Your task to perform on an android device: Toggle the flashlight Image 0: 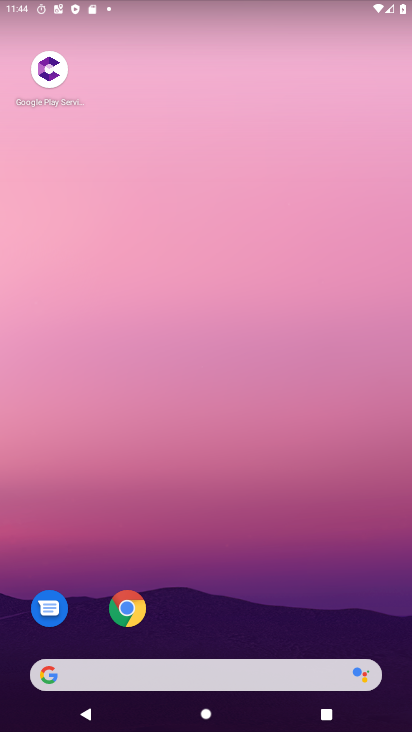
Step 0: drag from (228, 5) to (212, 412)
Your task to perform on an android device: Toggle the flashlight Image 1: 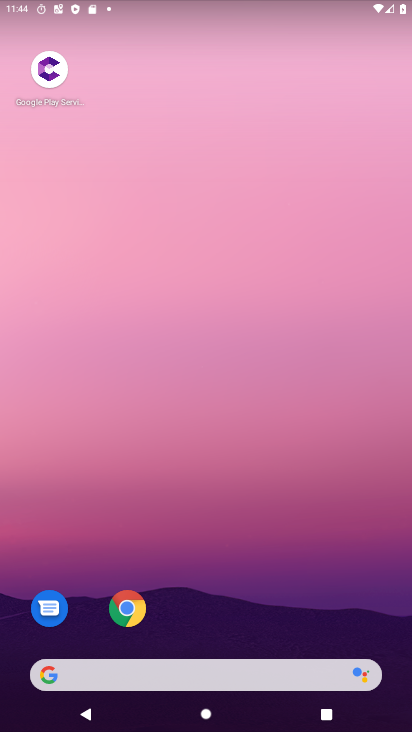
Step 1: drag from (206, 5) to (155, 470)
Your task to perform on an android device: Toggle the flashlight Image 2: 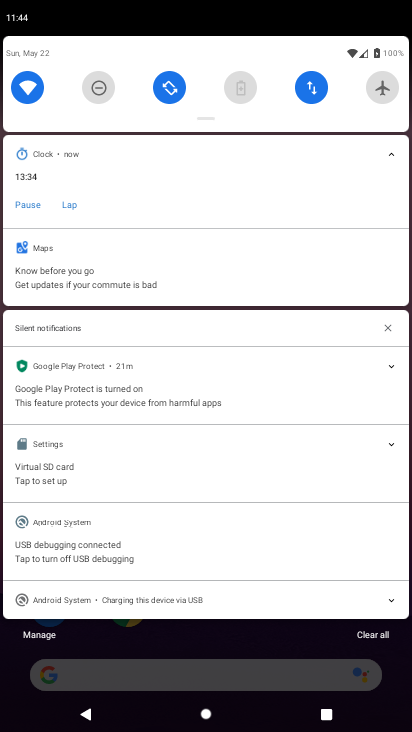
Step 2: drag from (199, 105) to (192, 377)
Your task to perform on an android device: Toggle the flashlight Image 3: 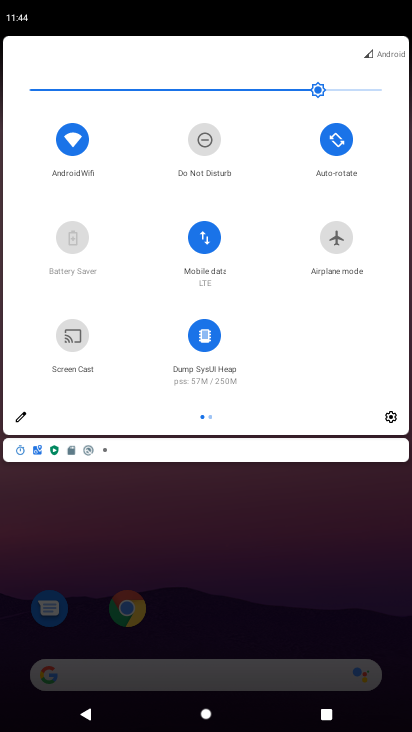
Step 3: click (26, 421)
Your task to perform on an android device: Toggle the flashlight Image 4: 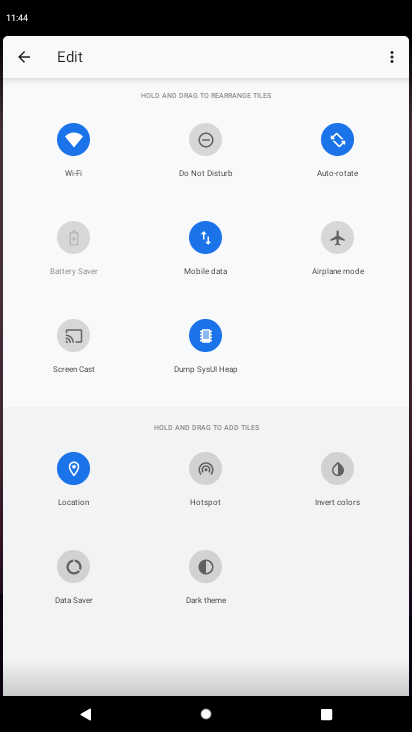
Step 4: task complete